Your task to perform on an android device: delete browsing data in the chrome app Image 0: 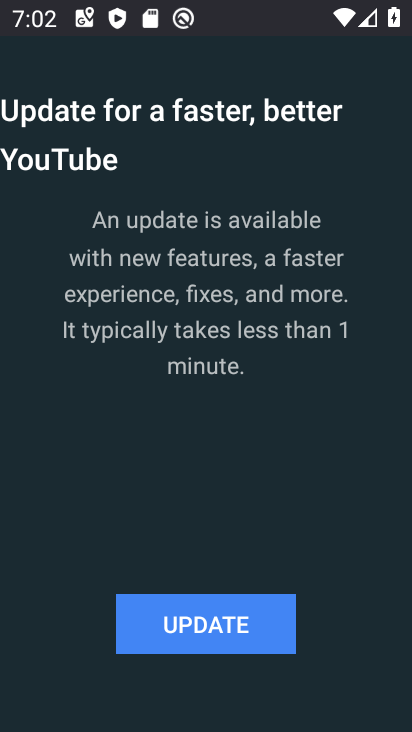
Step 0: press home button
Your task to perform on an android device: delete browsing data in the chrome app Image 1: 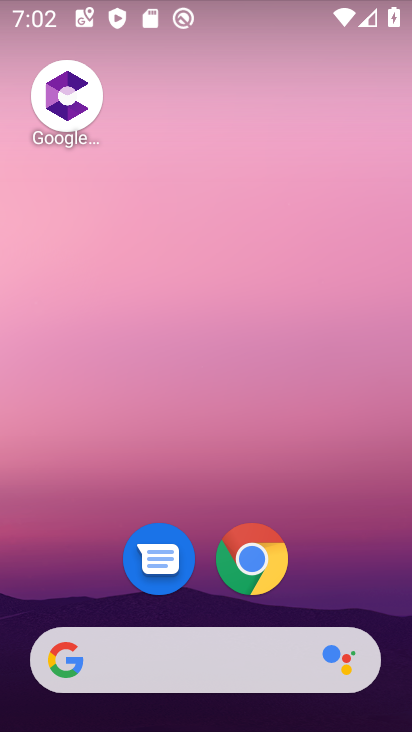
Step 1: click (256, 556)
Your task to perform on an android device: delete browsing data in the chrome app Image 2: 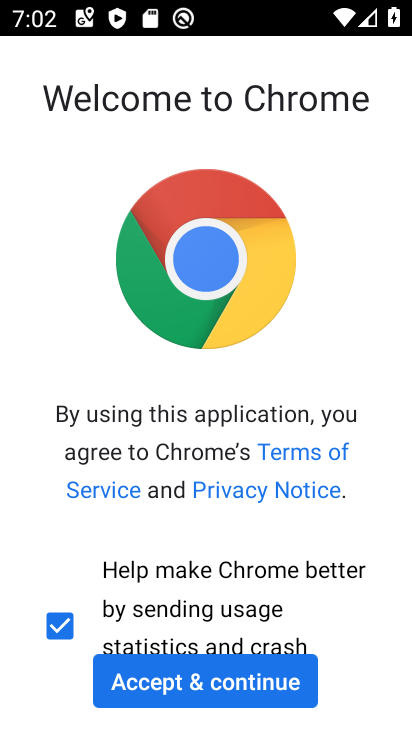
Step 2: click (241, 664)
Your task to perform on an android device: delete browsing data in the chrome app Image 3: 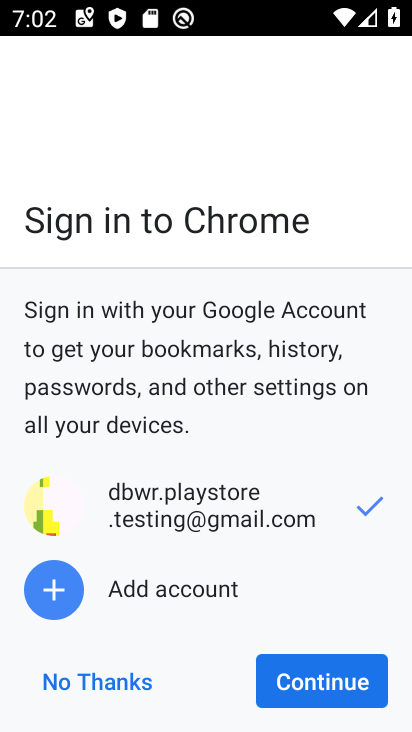
Step 3: click (301, 676)
Your task to perform on an android device: delete browsing data in the chrome app Image 4: 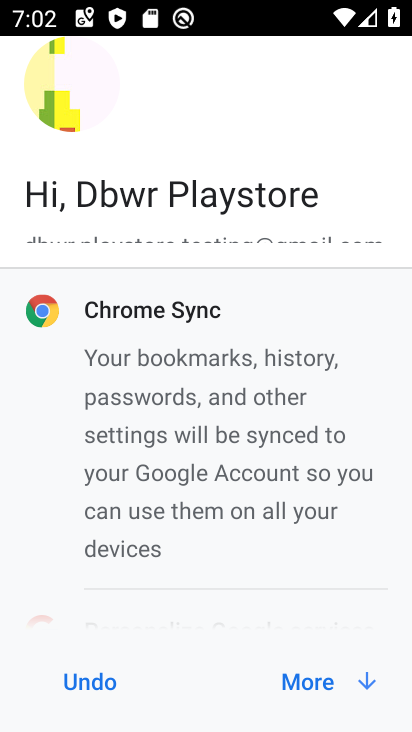
Step 4: click (301, 676)
Your task to perform on an android device: delete browsing data in the chrome app Image 5: 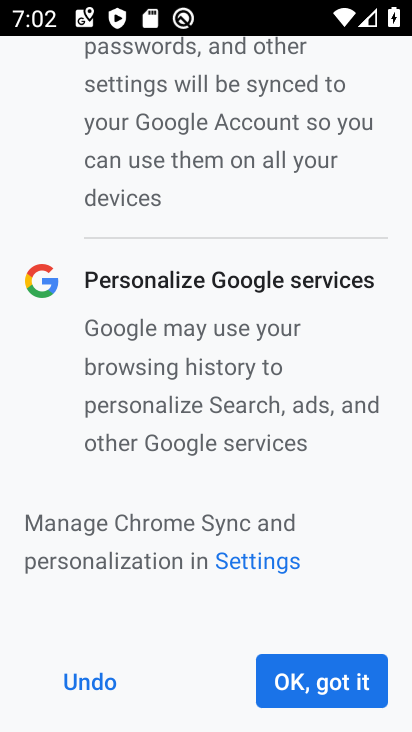
Step 5: click (301, 676)
Your task to perform on an android device: delete browsing data in the chrome app Image 6: 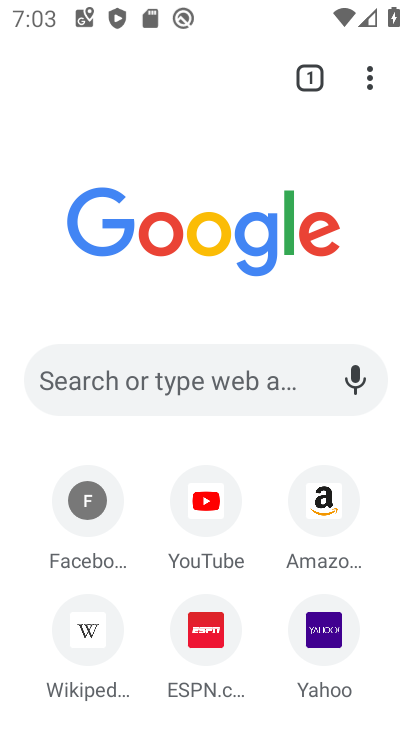
Step 6: drag from (372, 75) to (221, 642)
Your task to perform on an android device: delete browsing data in the chrome app Image 7: 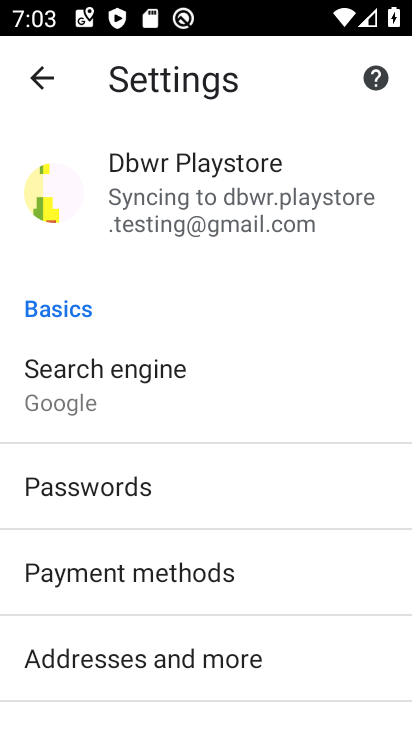
Step 7: drag from (303, 682) to (243, 126)
Your task to perform on an android device: delete browsing data in the chrome app Image 8: 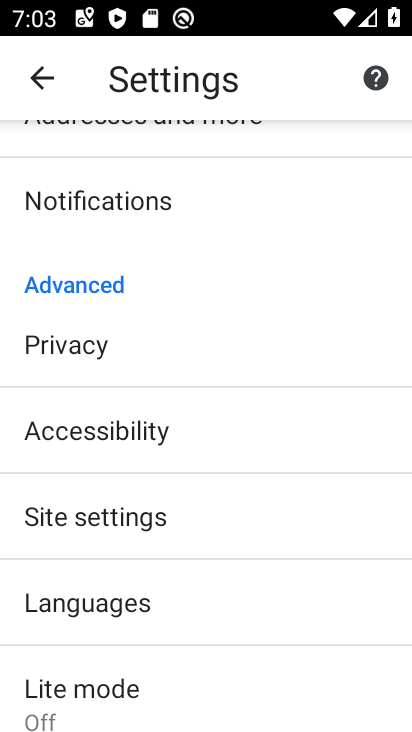
Step 8: click (77, 352)
Your task to perform on an android device: delete browsing data in the chrome app Image 9: 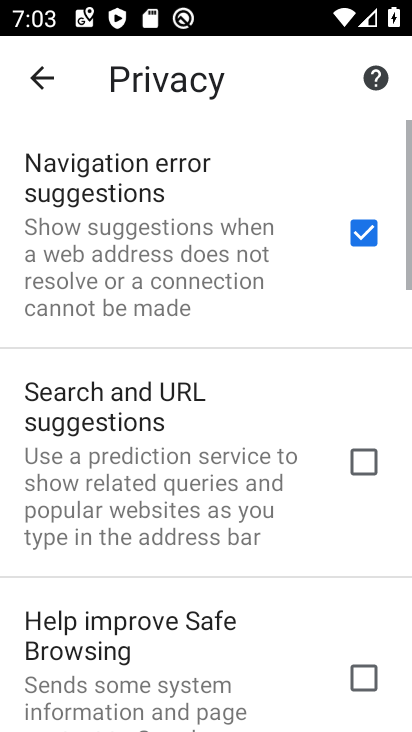
Step 9: drag from (233, 698) to (236, 212)
Your task to perform on an android device: delete browsing data in the chrome app Image 10: 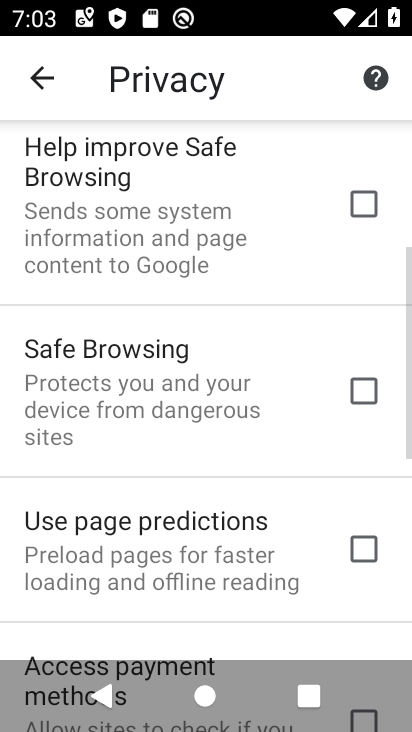
Step 10: drag from (124, 694) to (93, 172)
Your task to perform on an android device: delete browsing data in the chrome app Image 11: 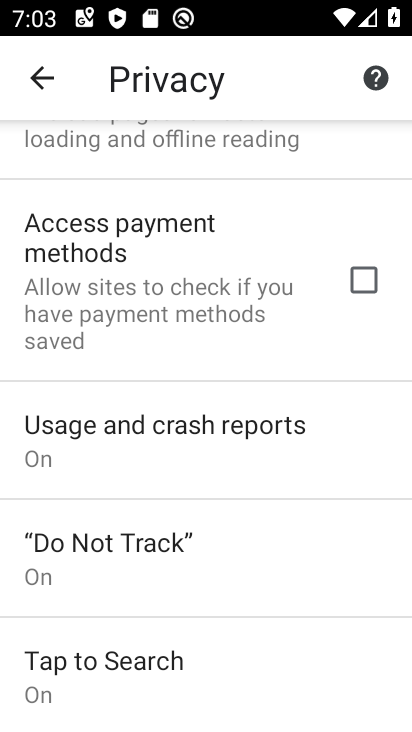
Step 11: drag from (190, 626) to (193, 253)
Your task to perform on an android device: delete browsing data in the chrome app Image 12: 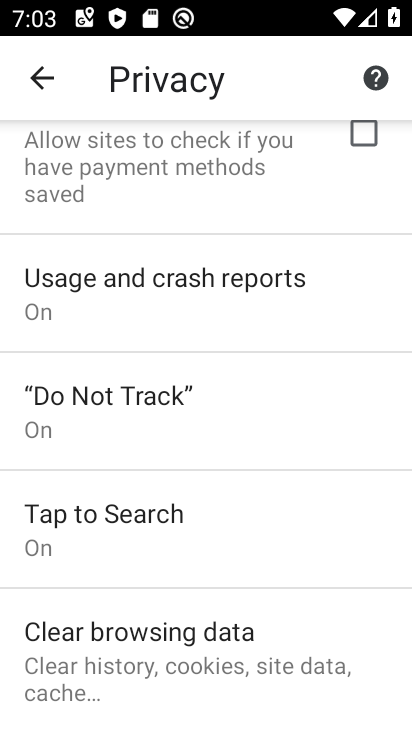
Step 12: click (175, 631)
Your task to perform on an android device: delete browsing data in the chrome app Image 13: 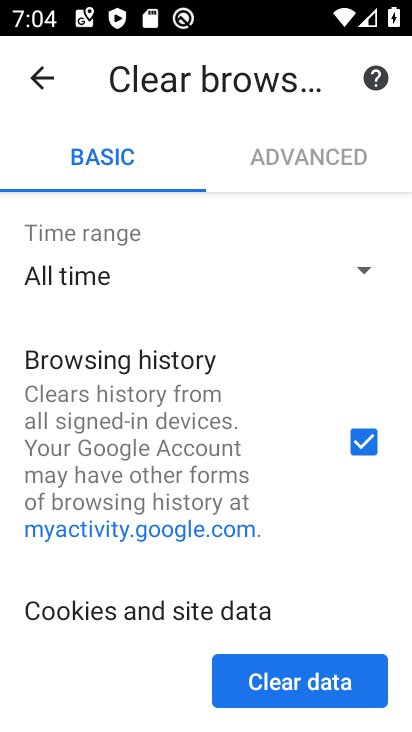
Step 13: click (301, 690)
Your task to perform on an android device: delete browsing data in the chrome app Image 14: 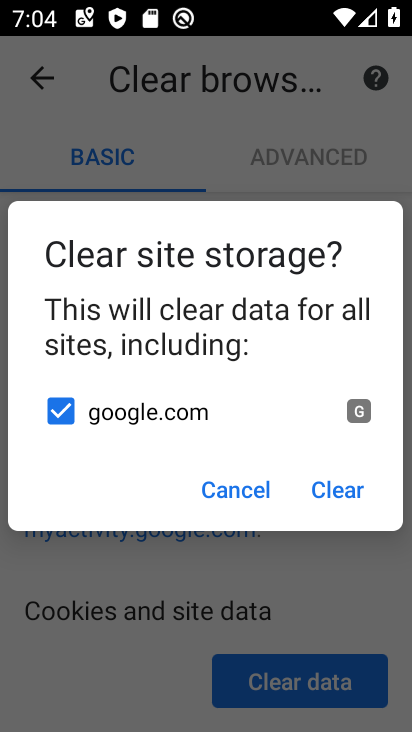
Step 14: click (348, 490)
Your task to perform on an android device: delete browsing data in the chrome app Image 15: 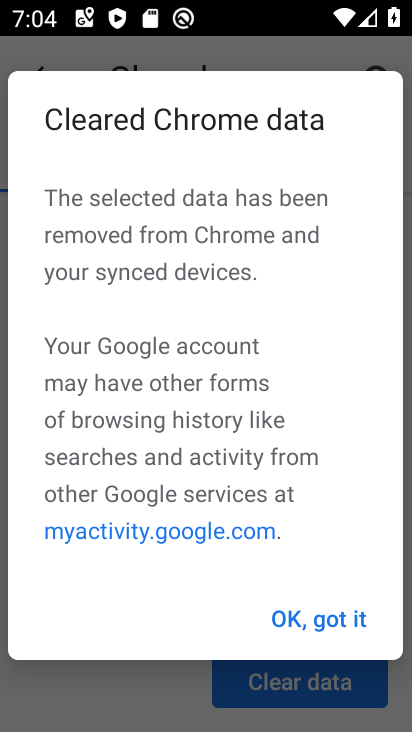
Step 15: click (321, 613)
Your task to perform on an android device: delete browsing data in the chrome app Image 16: 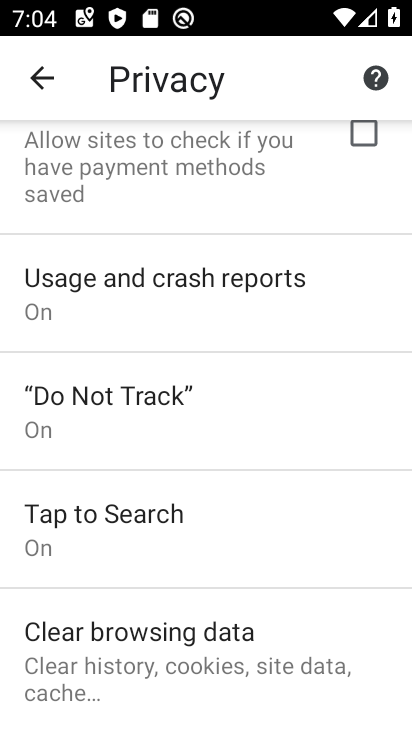
Step 16: task complete